Your task to perform on an android device: toggle pop-ups in chrome Image 0: 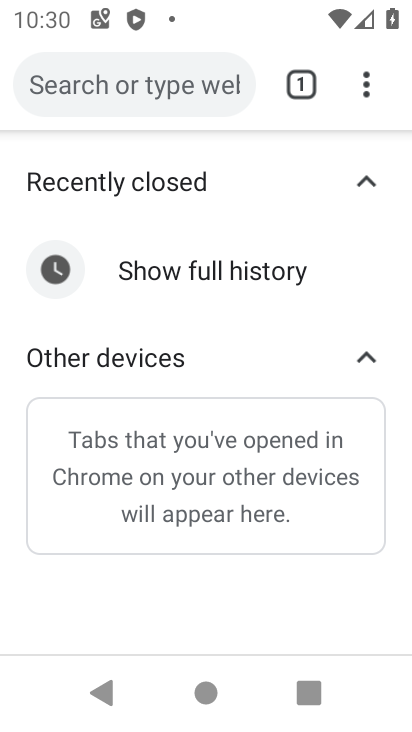
Step 0: click (369, 87)
Your task to perform on an android device: toggle pop-ups in chrome Image 1: 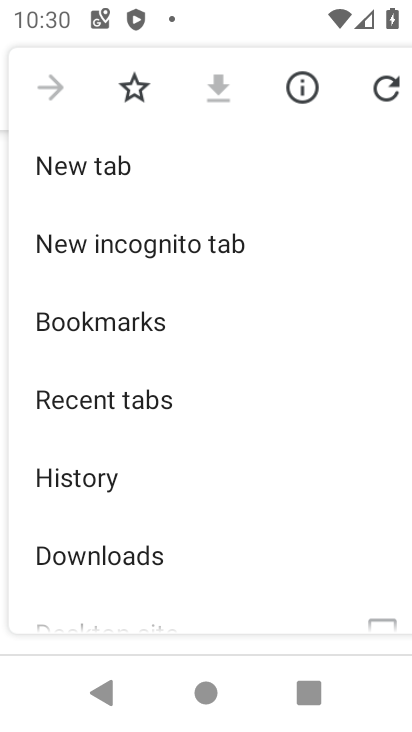
Step 1: drag from (187, 530) to (228, 129)
Your task to perform on an android device: toggle pop-ups in chrome Image 2: 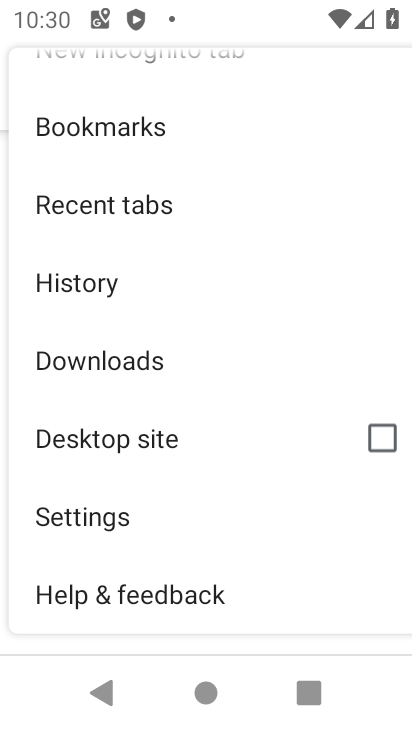
Step 2: click (90, 513)
Your task to perform on an android device: toggle pop-ups in chrome Image 3: 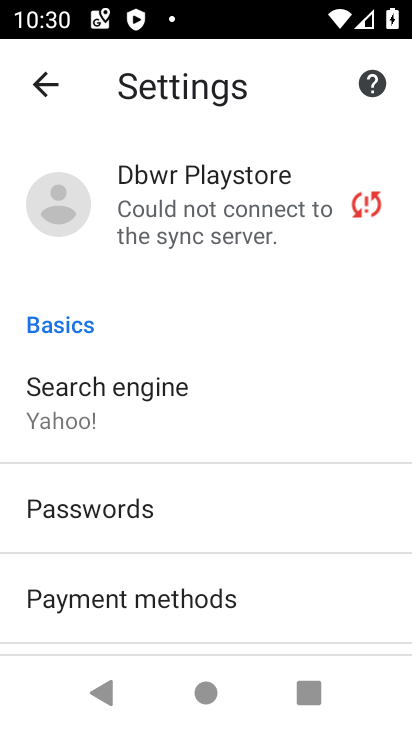
Step 3: drag from (274, 603) to (215, 244)
Your task to perform on an android device: toggle pop-ups in chrome Image 4: 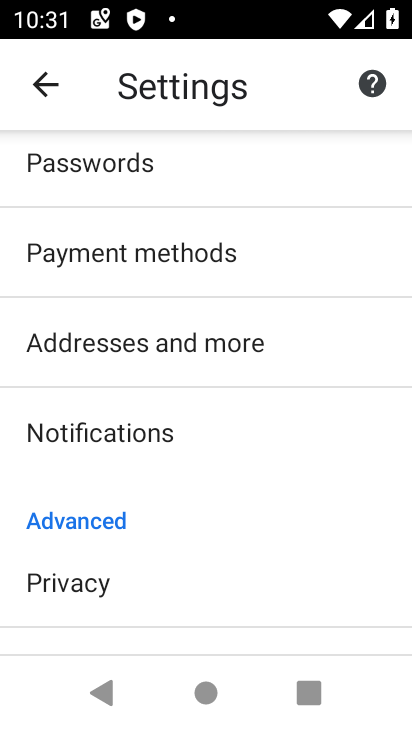
Step 4: drag from (208, 515) to (248, 153)
Your task to perform on an android device: toggle pop-ups in chrome Image 5: 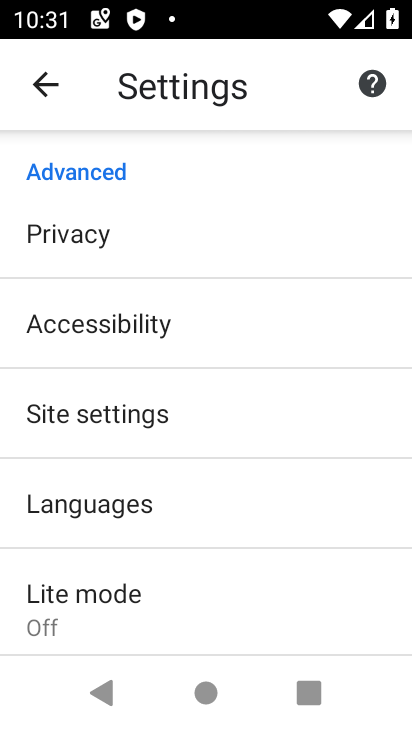
Step 5: drag from (228, 587) to (234, 447)
Your task to perform on an android device: toggle pop-ups in chrome Image 6: 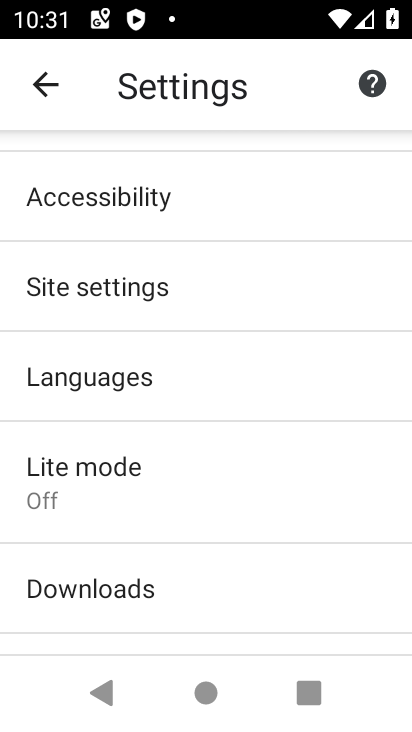
Step 6: click (97, 275)
Your task to perform on an android device: toggle pop-ups in chrome Image 7: 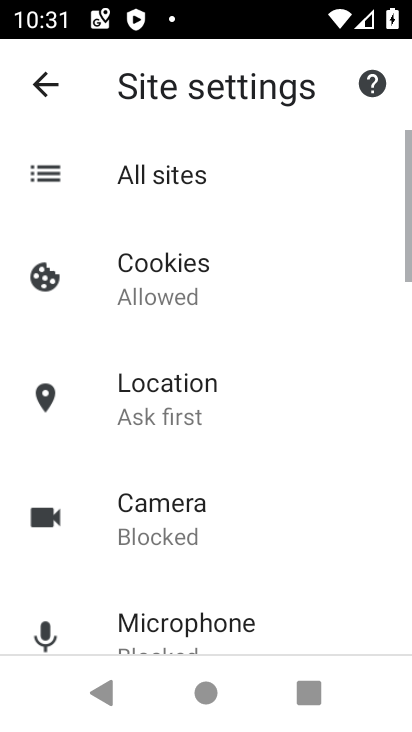
Step 7: drag from (271, 687) to (257, 252)
Your task to perform on an android device: toggle pop-ups in chrome Image 8: 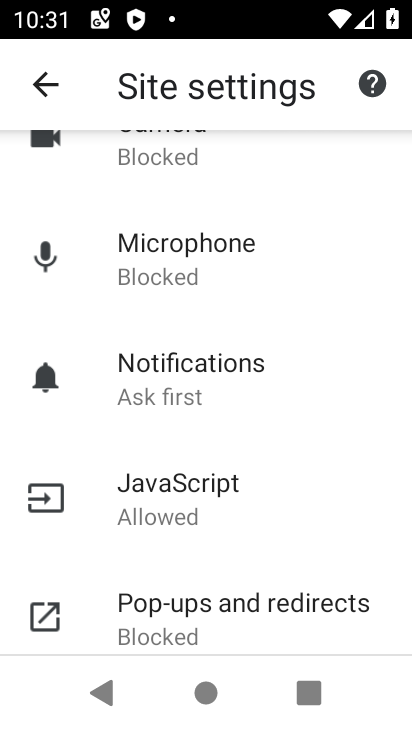
Step 8: click (185, 611)
Your task to perform on an android device: toggle pop-ups in chrome Image 9: 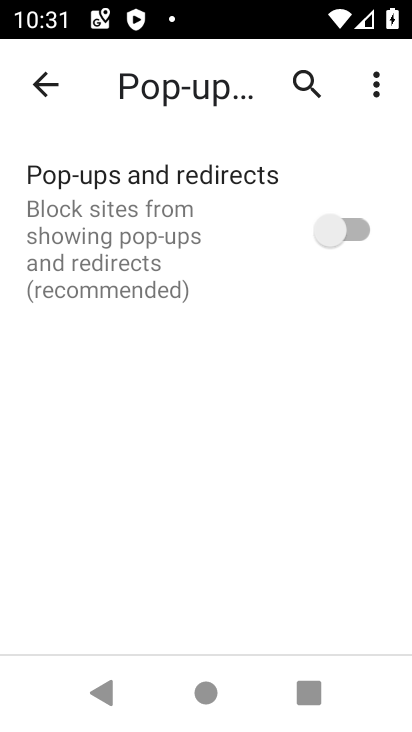
Step 9: click (359, 226)
Your task to perform on an android device: toggle pop-ups in chrome Image 10: 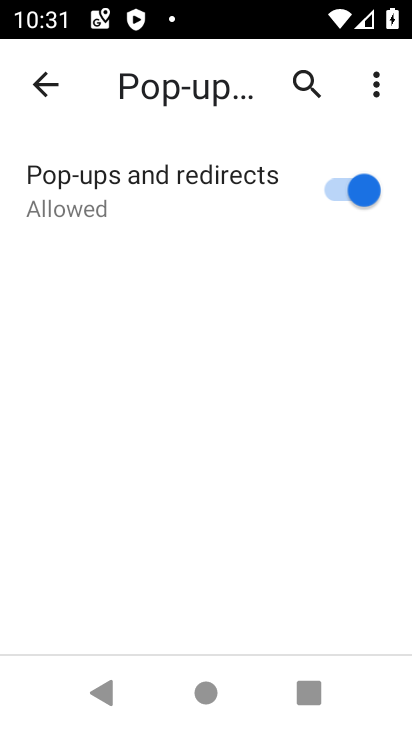
Step 10: task complete